Your task to perform on an android device: Turn on the flashlight Image 0: 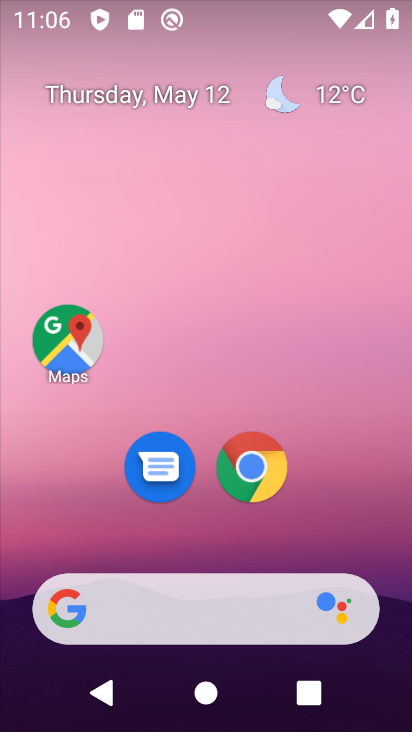
Step 0: drag from (391, 574) to (231, 24)
Your task to perform on an android device: Turn on the flashlight Image 1: 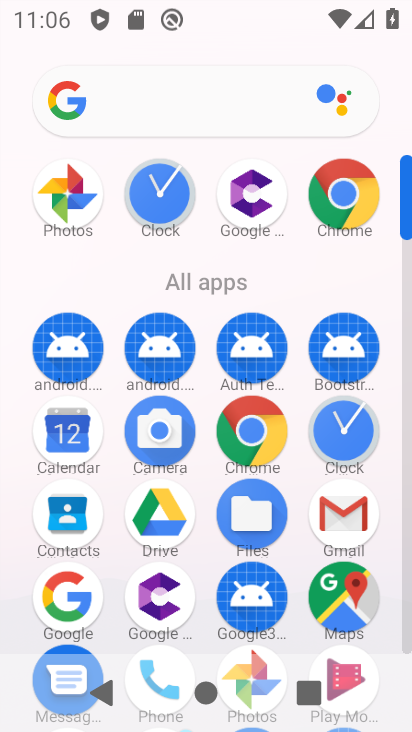
Step 1: drag from (7, 547) to (18, 239)
Your task to perform on an android device: Turn on the flashlight Image 2: 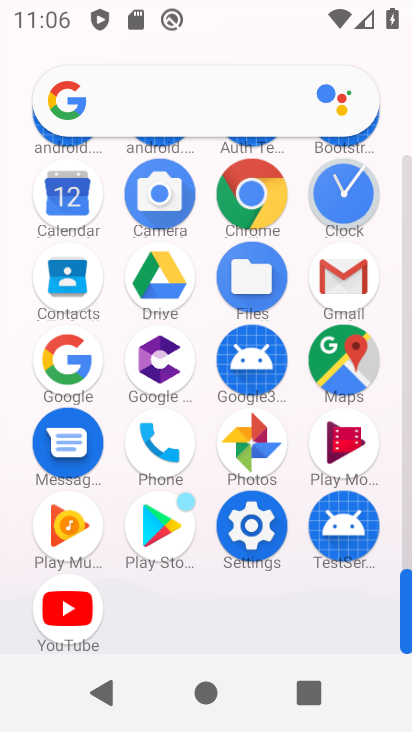
Step 2: click (249, 522)
Your task to perform on an android device: Turn on the flashlight Image 3: 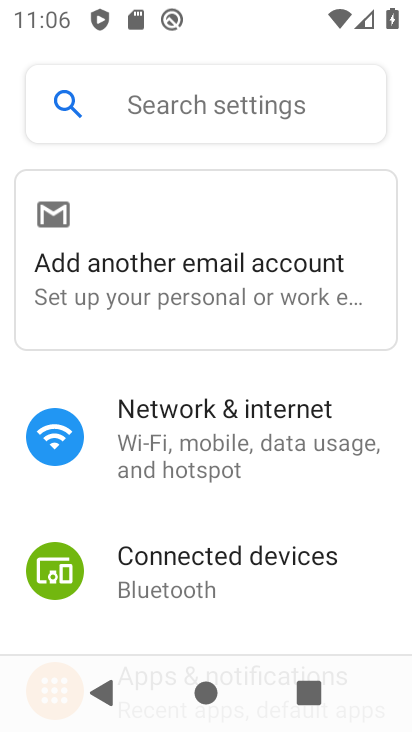
Step 3: click (226, 421)
Your task to perform on an android device: Turn on the flashlight Image 4: 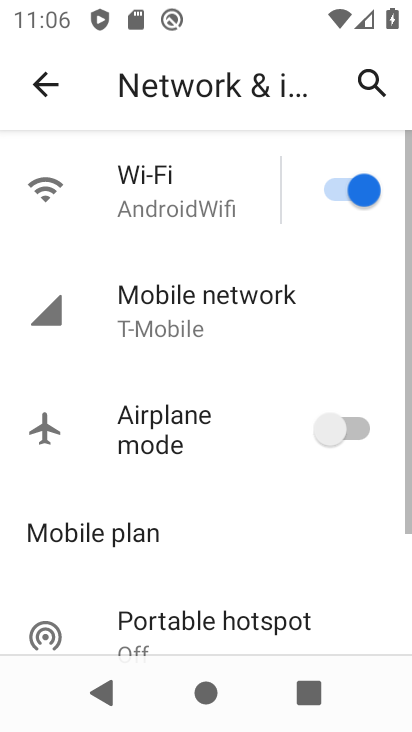
Step 4: drag from (225, 517) to (224, 183)
Your task to perform on an android device: Turn on the flashlight Image 5: 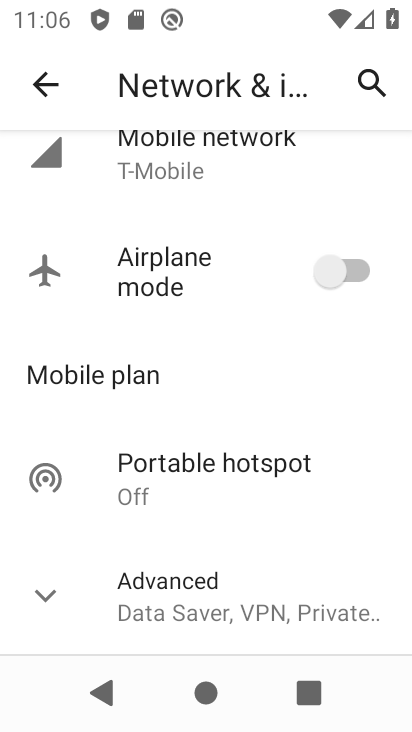
Step 5: click (51, 582)
Your task to perform on an android device: Turn on the flashlight Image 6: 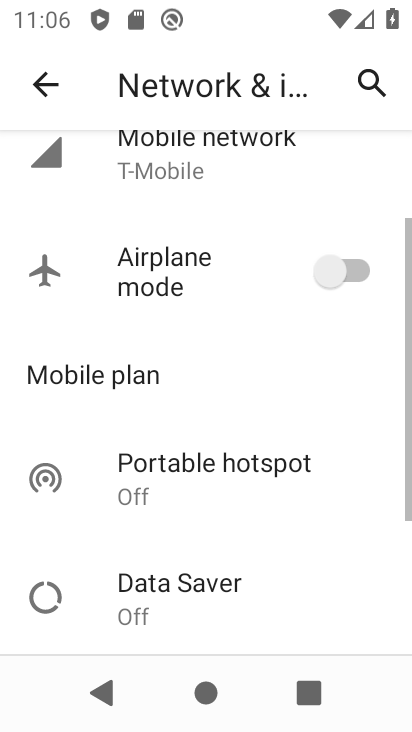
Step 6: task complete